Your task to perform on an android device: turn on airplane mode Image 0: 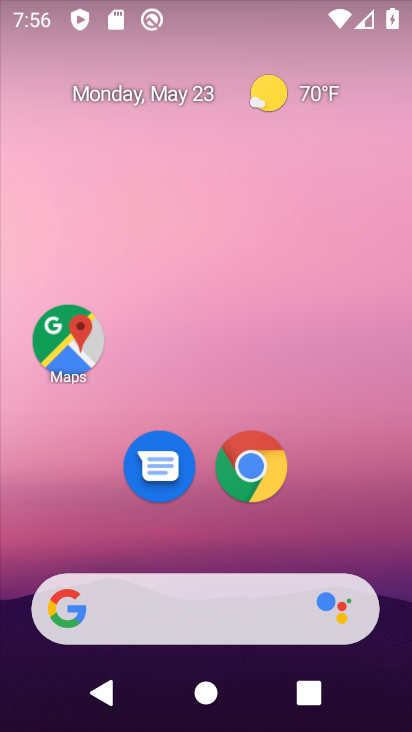
Step 0: drag from (262, 631) to (268, 186)
Your task to perform on an android device: turn on airplane mode Image 1: 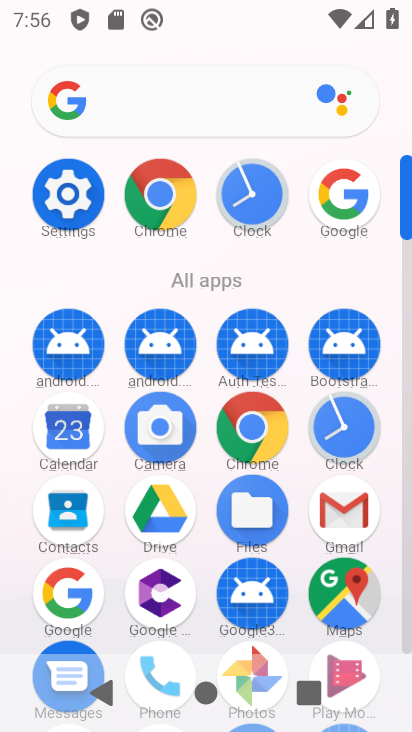
Step 1: click (71, 209)
Your task to perform on an android device: turn on airplane mode Image 2: 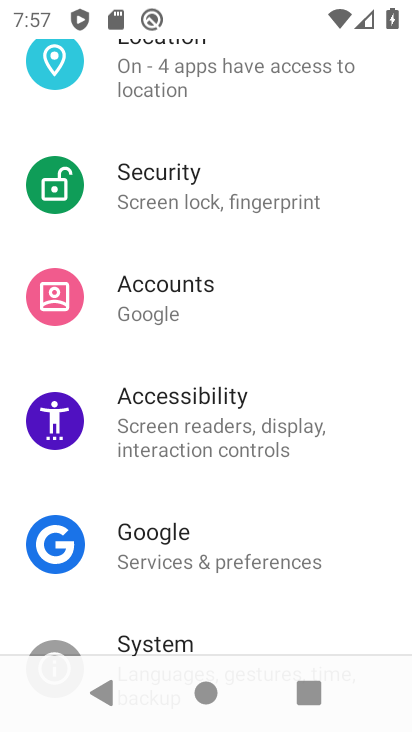
Step 2: drag from (233, 217) to (243, 620)
Your task to perform on an android device: turn on airplane mode Image 3: 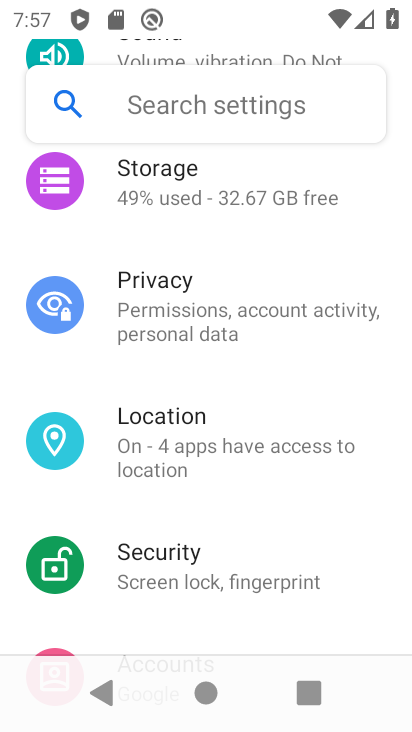
Step 3: drag from (243, 348) to (229, 656)
Your task to perform on an android device: turn on airplane mode Image 4: 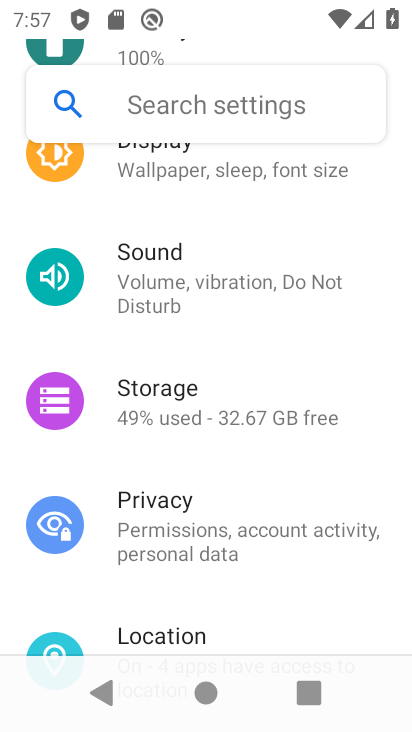
Step 4: drag from (214, 247) to (204, 728)
Your task to perform on an android device: turn on airplane mode Image 5: 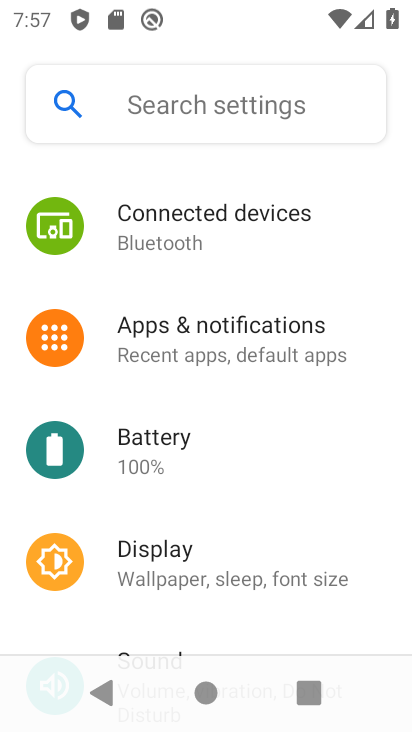
Step 5: drag from (207, 230) to (183, 645)
Your task to perform on an android device: turn on airplane mode Image 6: 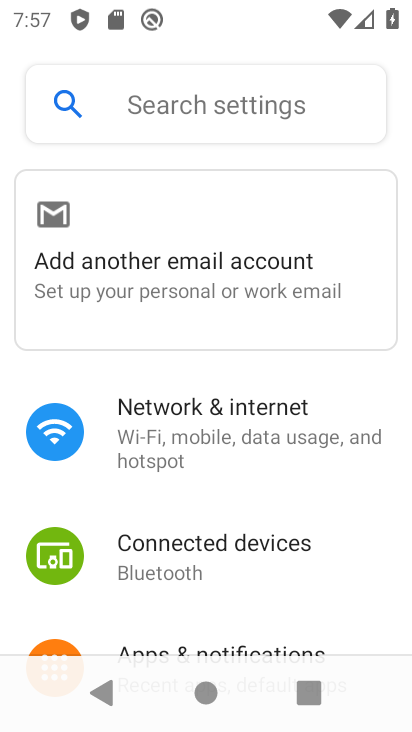
Step 6: click (265, 418)
Your task to perform on an android device: turn on airplane mode Image 7: 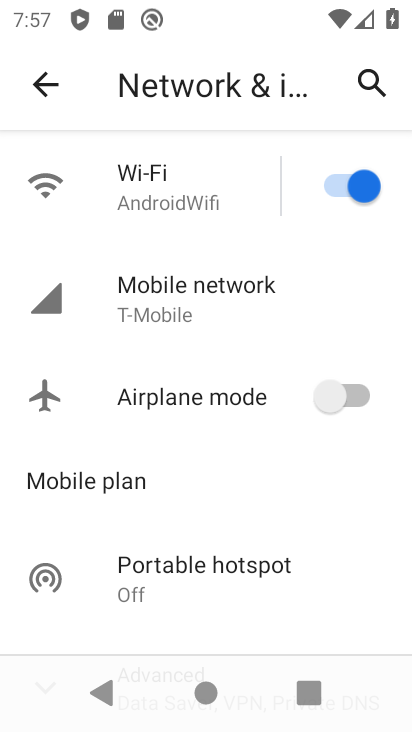
Step 7: click (254, 395)
Your task to perform on an android device: turn on airplane mode Image 8: 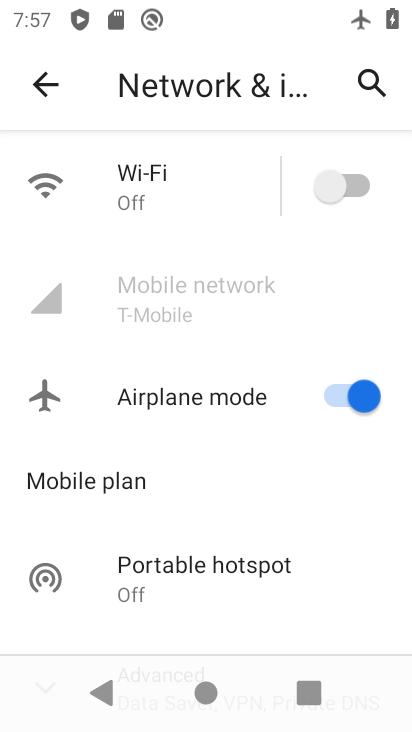
Step 8: task complete